Your task to perform on an android device: turn on priority inbox in the gmail app Image 0: 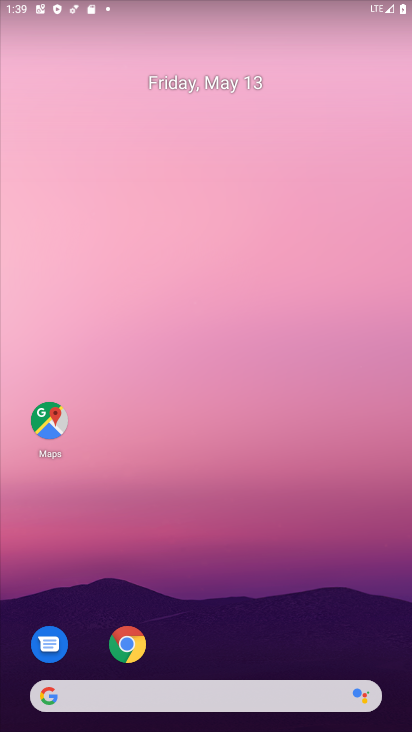
Step 0: drag from (315, 601) to (222, 75)
Your task to perform on an android device: turn on priority inbox in the gmail app Image 1: 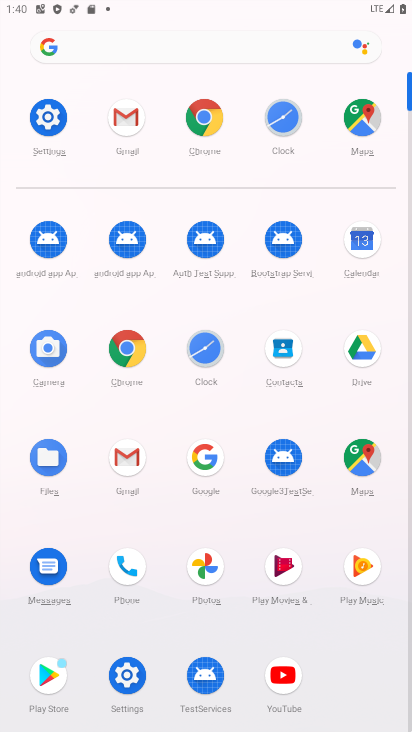
Step 1: click (118, 458)
Your task to perform on an android device: turn on priority inbox in the gmail app Image 2: 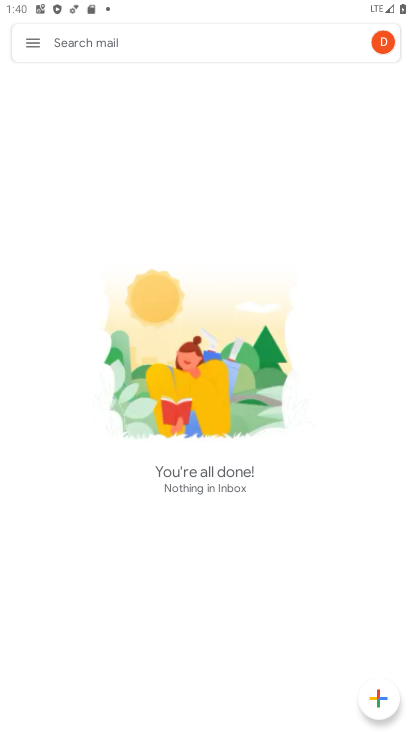
Step 2: click (32, 44)
Your task to perform on an android device: turn on priority inbox in the gmail app Image 3: 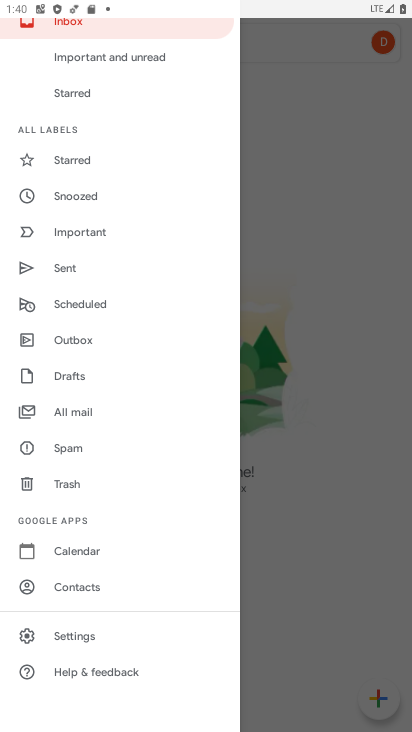
Step 3: click (102, 631)
Your task to perform on an android device: turn on priority inbox in the gmail app Image 4: 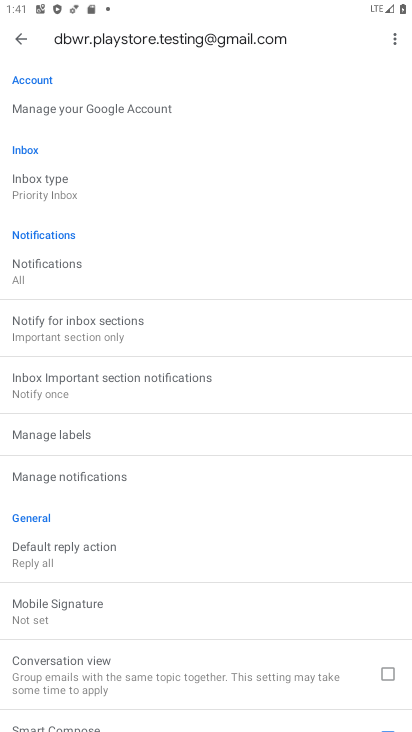
Step 4: click (99, 189)
Your task to perform on an android device: turn on priority inbox in the gmail app Image 5: 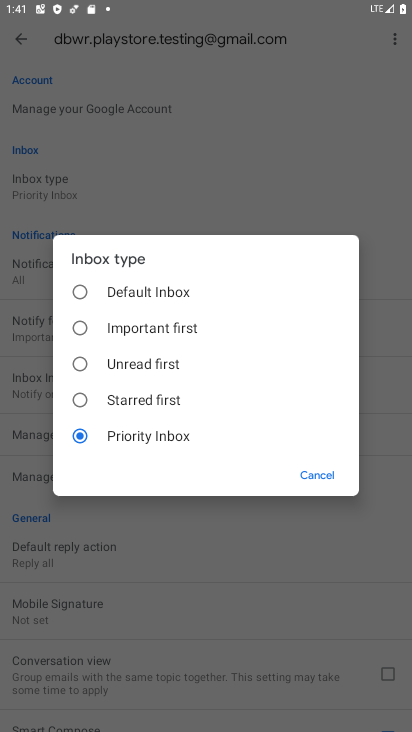
Step 5: task complete